Your task to perform on an android device: turn notification dots on Image 0: 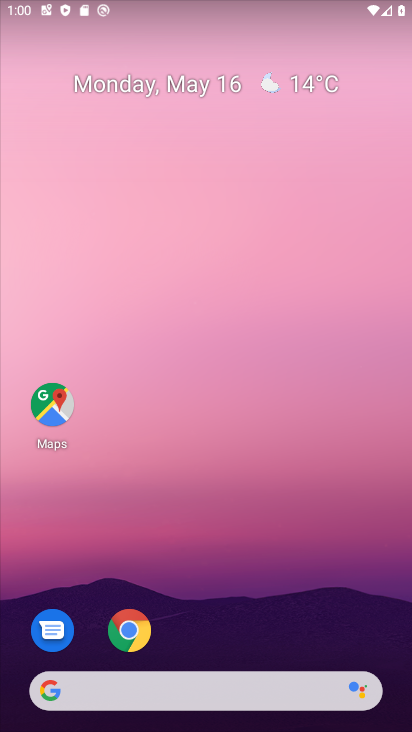
Step 0: drag from (333, 597) to (278, 63)
Your task to perform on an android device: turn notification dots on Image 1: 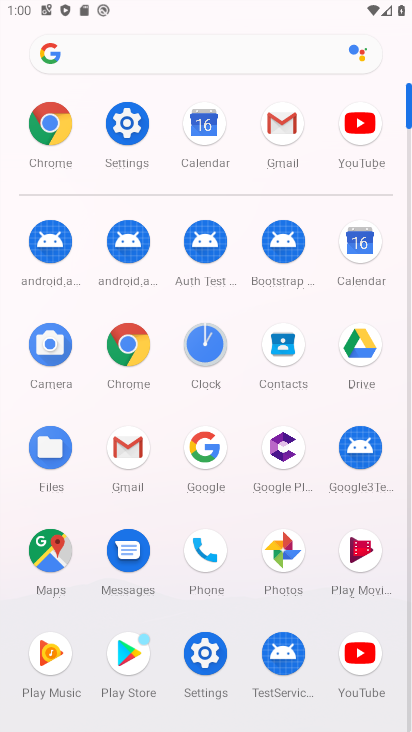
Step 1: click (112, 125)
Your task to perform on an android device: turn notification dots on Image 2: 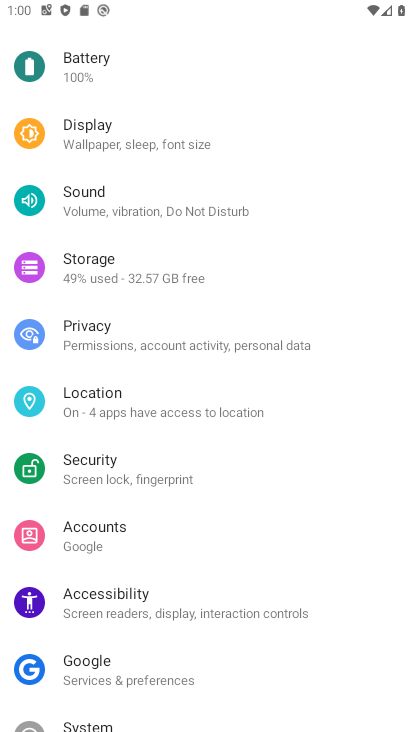
Step 2: drag from (136, 142) to (130, 532)
Your task to perform on an android device: turn notification dots on Image 3: 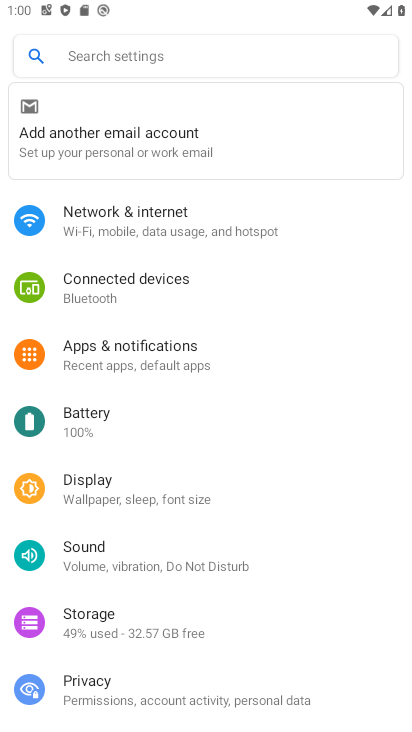
Step 3: click (129, 357)
Your task to perform on an android device: turn notification dots on Image 4: 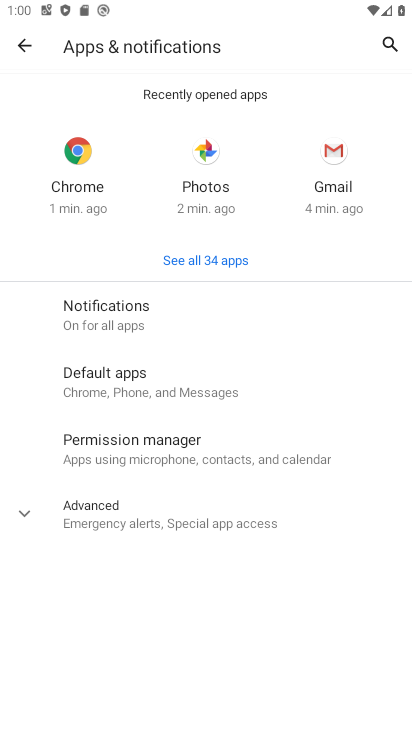
Step 4: click (121, 319)
Your task to perform on an android device: turn notification dots on Image 5: 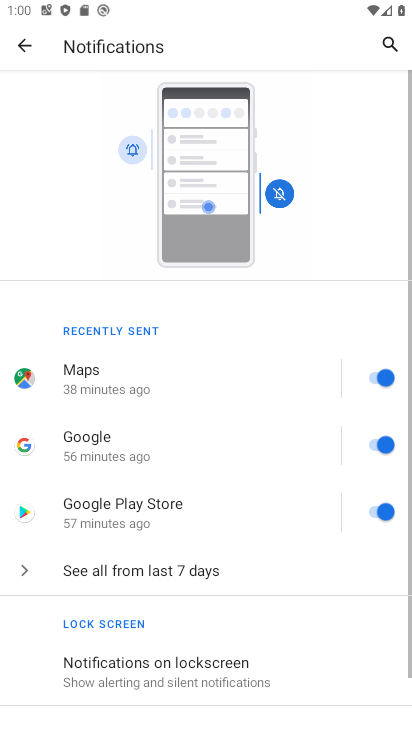
Step 5: drag from (146, 641) to (112, 354)
Your task to perform on an android device: turn notification dots on Image 6: 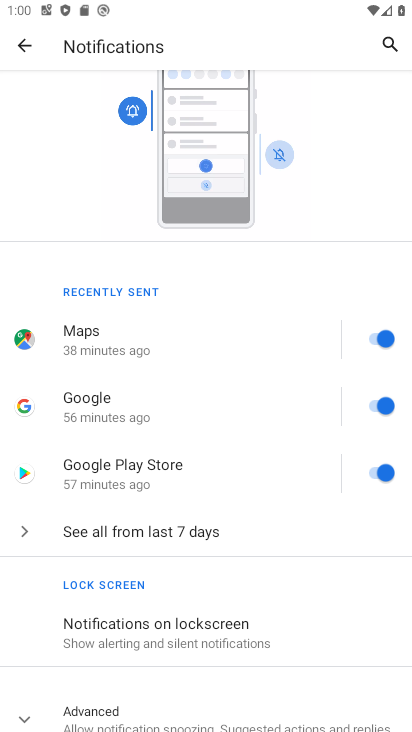
Step 6: click (108, 704)
Your task to perform on an android device: turn notification dots on Image 7: 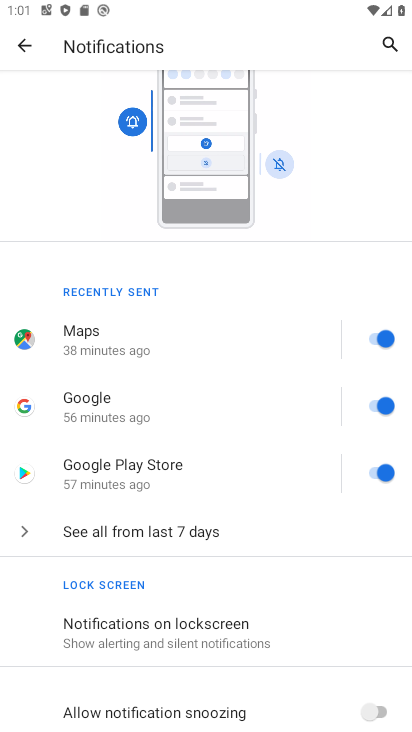
Step 7: task complete